Your task to perform on an android device: Open Google Image 0: 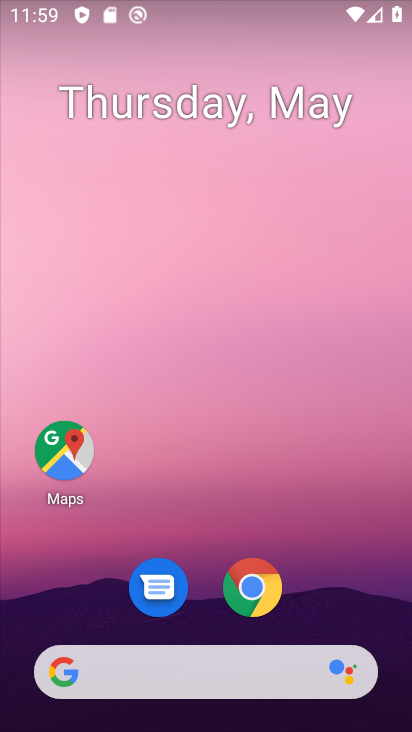
Step 0: drag from (207, 631) to (251, 125)
Your task to perform on an android device: Open Google Image 1: 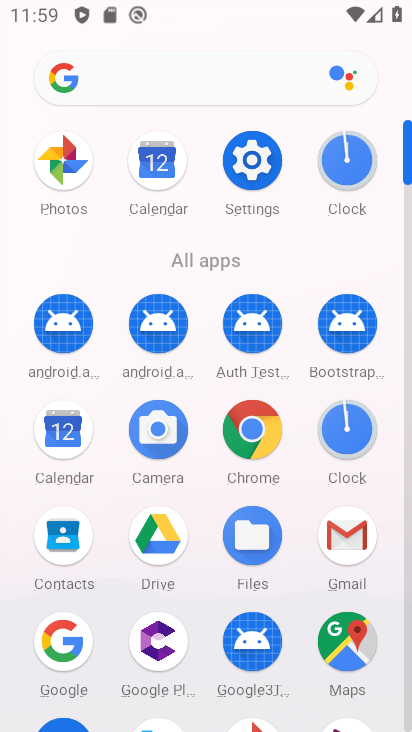
Step 1: click (63, 642)
Your task to perform on an android device: Open Google Image 2: 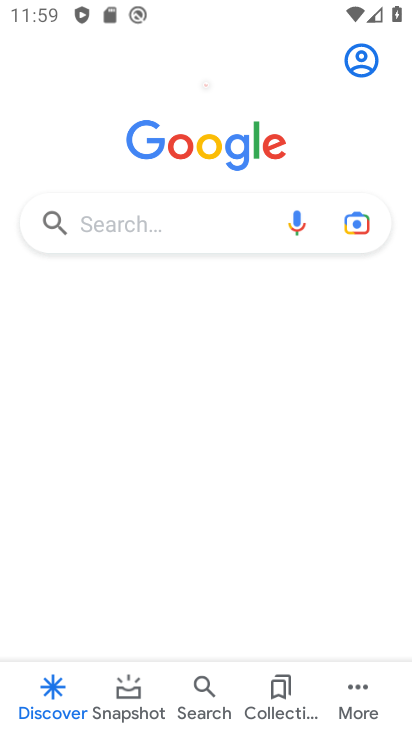
Step 2: task complete